Your task to perform on an android device: toggle notifications settings in the gmail app Image 0: 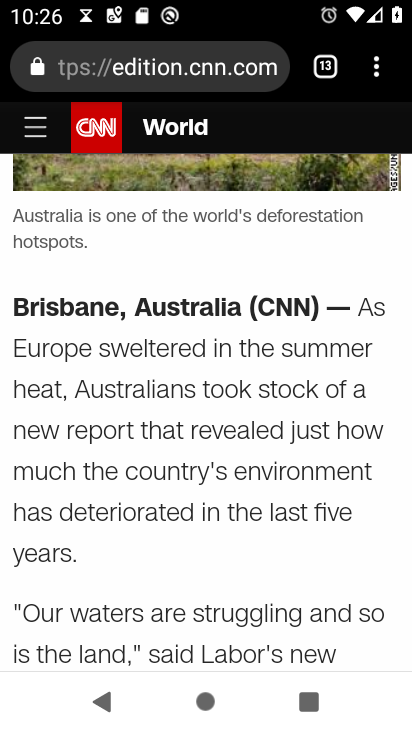
Step 0: press home button
Your task to perform on an android device: toggle notifications settings in the gmail app Image 1: 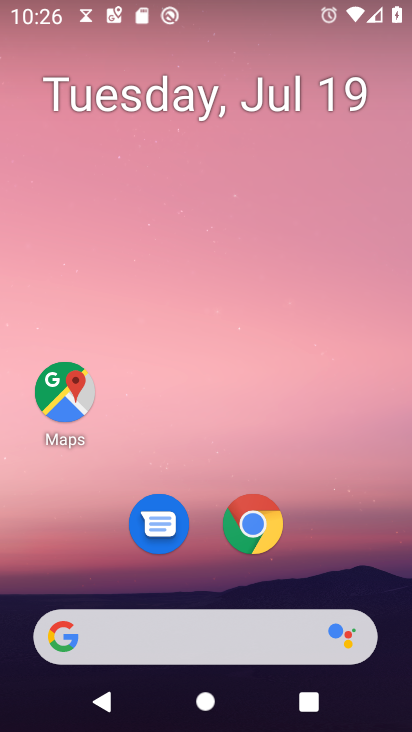
Step 1: drag from (231, 643) to (331, 145)
Your task to perform on an android device: toggle notifications settings in the gmail app Image 2: 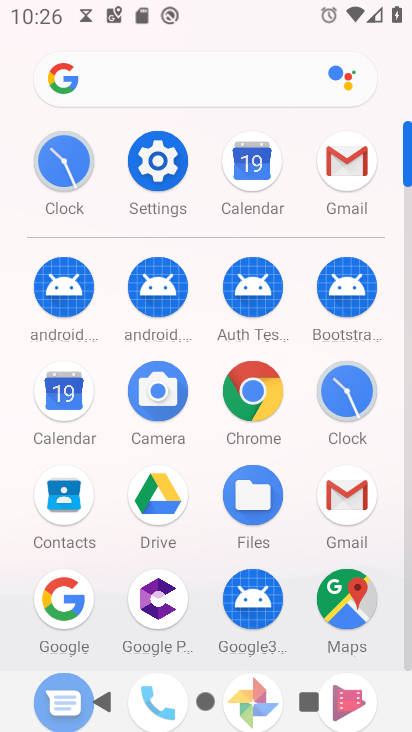
Step 2: click (355, 174)
Your task to perform on an android device: toggle notifications settings in the gmail app Image 3: 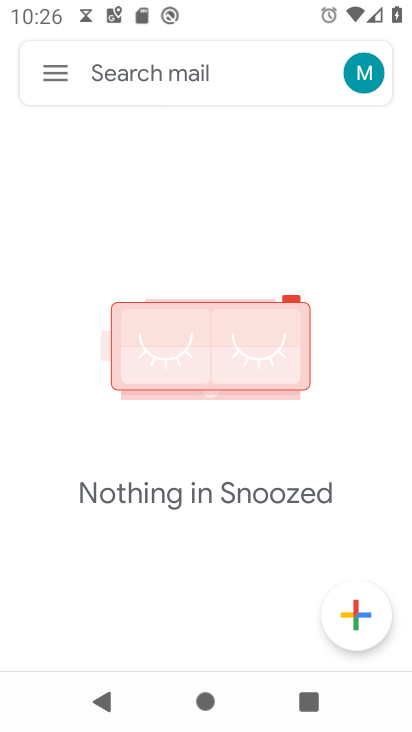
Step 3: click (51, 74)
Your task to perform on an android device: toggle notifications settings in the gmail app Image 4: 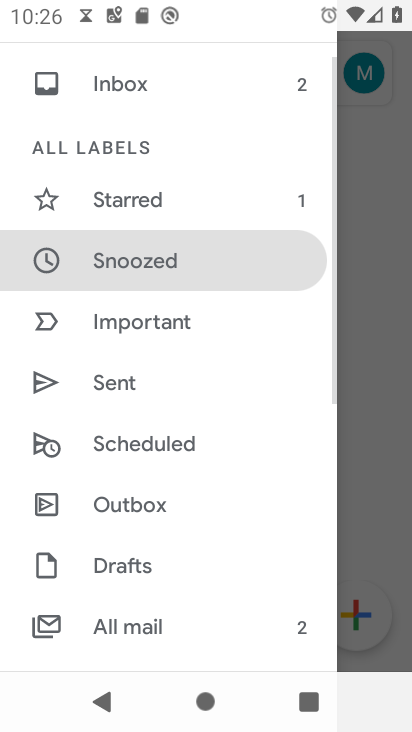
Step 4: drag from (182, 621) to (253, 11)
Your task to perform on an android device: toggle notifications settings in the gmail app Image 5: 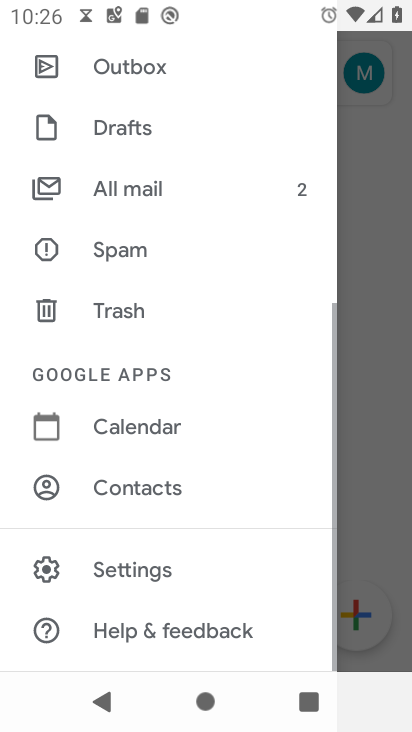
Step 5: click (156, 571)
Your task to perform on an android device: toggle notifications settings in the gmail app Image 6: 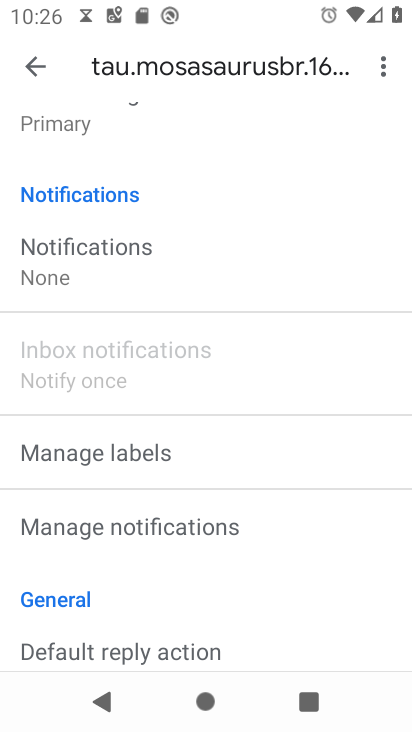
Step 6: click (82, 262)
Your task to perform on an android device: toggle notifications settings in the gmail app Image 7: 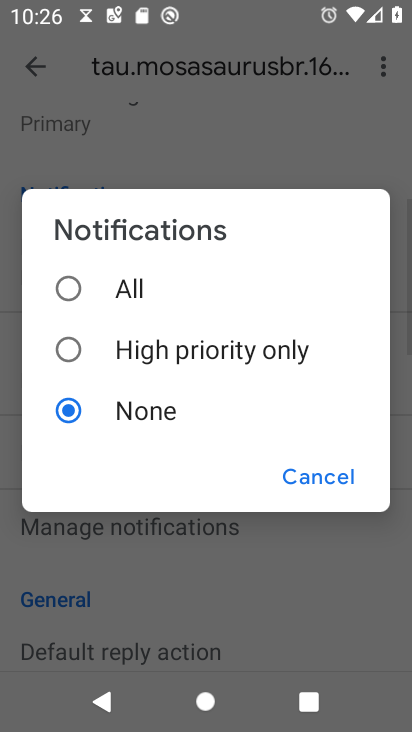
Step 7: click (69, 287)
Your task to perform on an android device: toggle notifications settings in the gmail app Image 8: 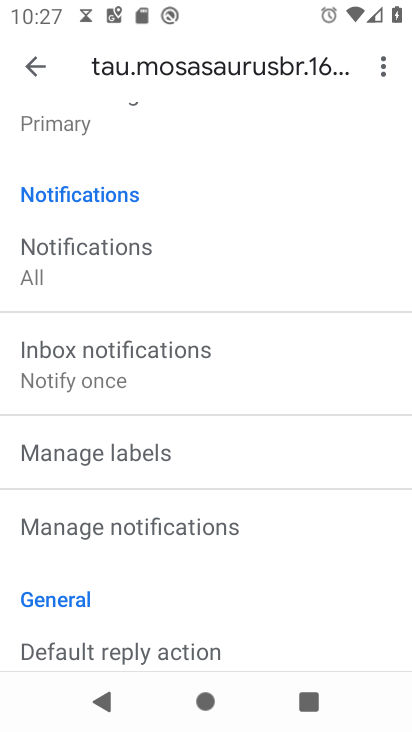
Step 8: task complete